Your task to perform on an android device: change the clock style Image 0: 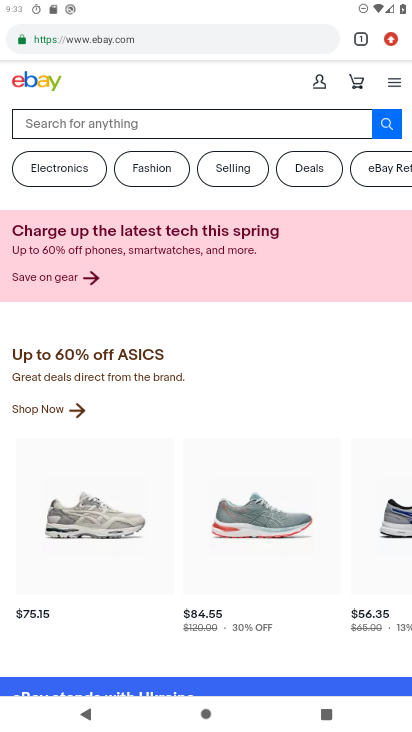
Step 0: press home button
Your task to perform on an android device: change the clock style Image 1: 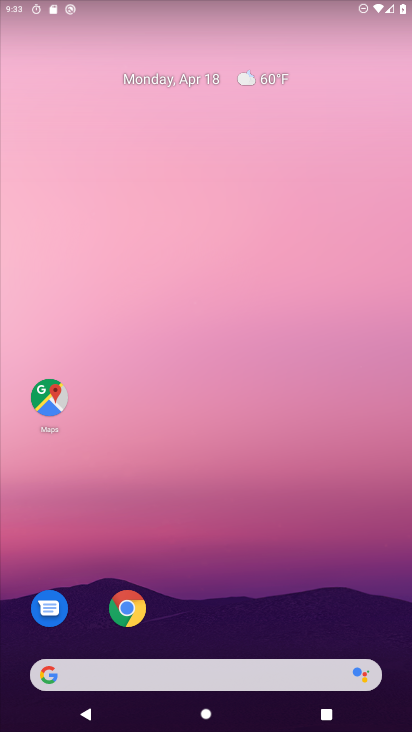
Step 1: drag from (286, 145) to (283, 66)
Your task to perform on an android device: change the clock style Image 2: 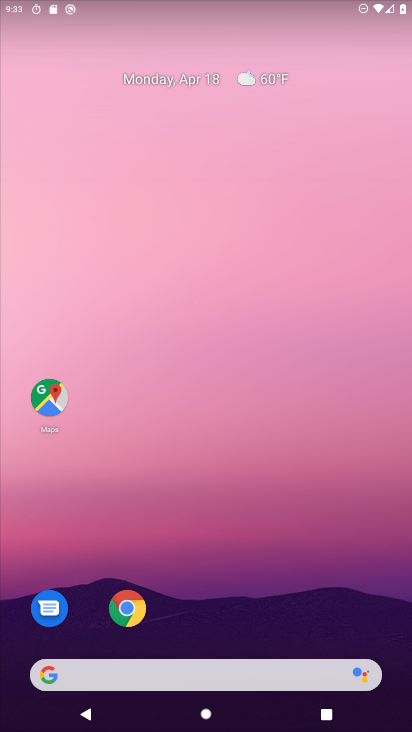
Step 2: click (386, 23)
Your task to perform on an android device: change the clock style Image 3: 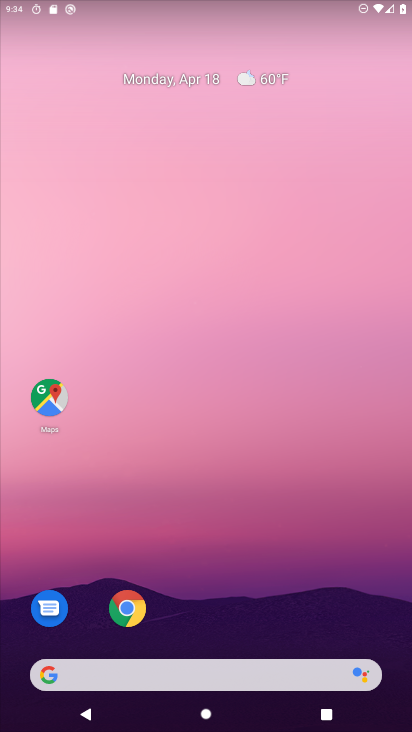
Step 3: drag from (336, 358) to (331, 83)
Your task to perform on an android device: change the clock style Image 4: 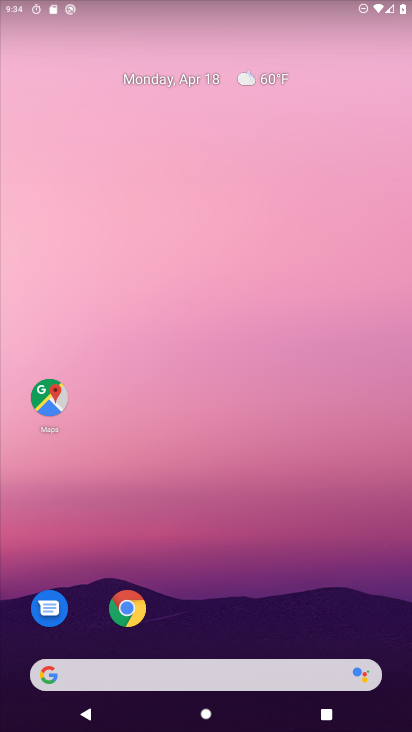
Step 4: drag from (361, 509) to (347, 41)
Your task to perform on an android device: change the clock style Image 5: 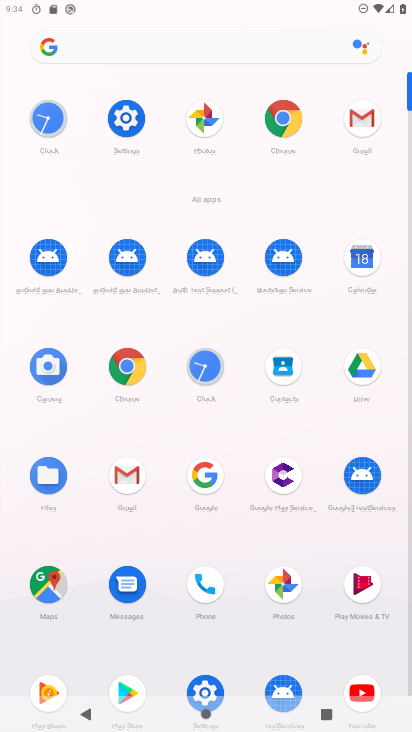
Step 5: click (213, 360)
Your task to perform on an android device: change the clock style Image 6: 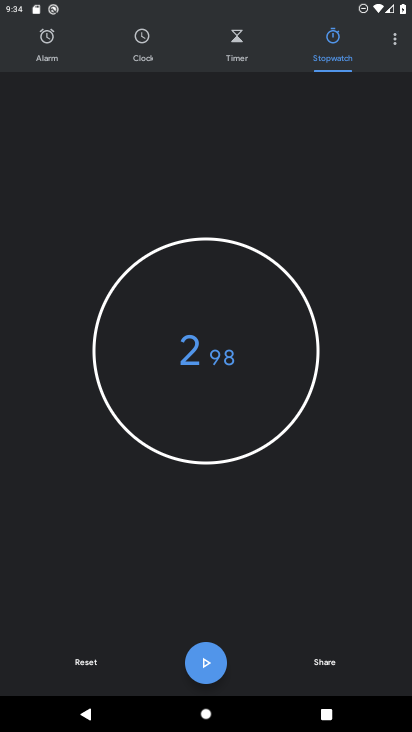
Step 6: click (146, 40)
Your task to perform on an android device: change the clock style Image 7: 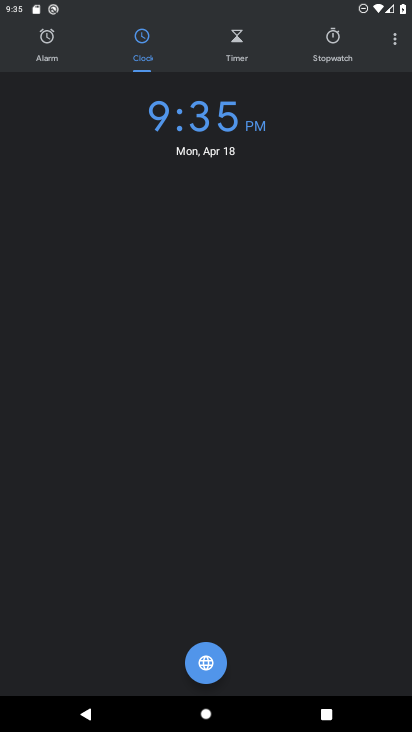
Step 7: click (393, 38)
Your task to perform on an android device: change the clock style Image 8: 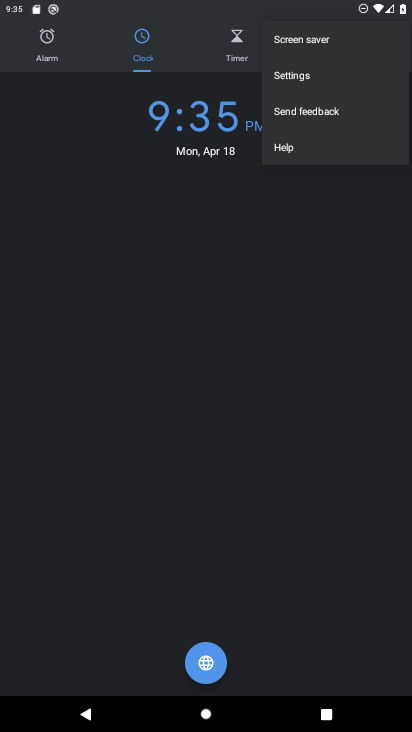
Step 8: click (296, 69)
Your task to perform on an android device: change the clock style Image 9: 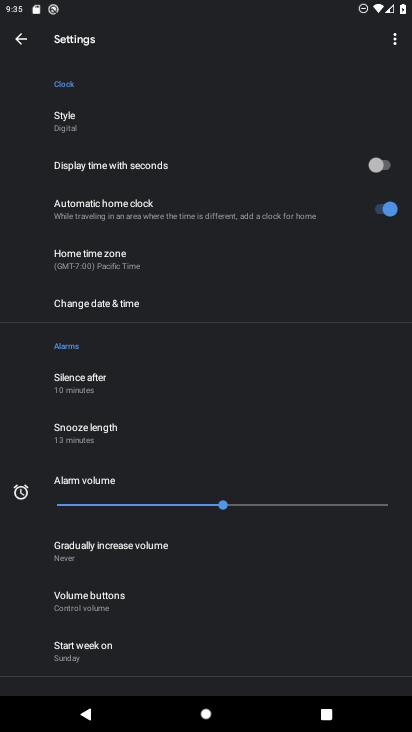
Step 9: click (76, 128)
Your task to perform on an android device: change the clock style Image 10: 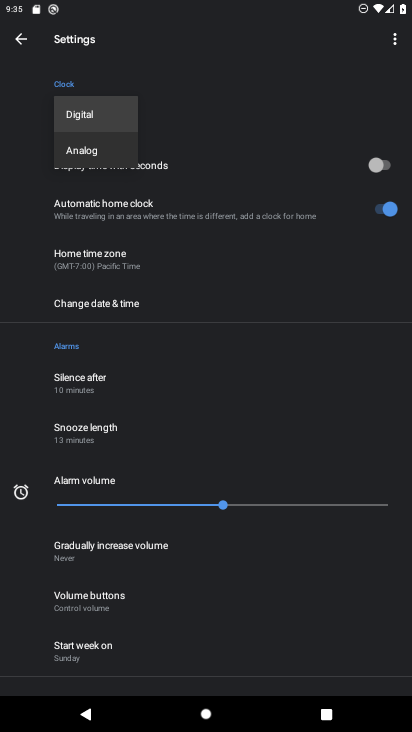
Step 10: click (101, 146)
Your task to perform on an android device: change the clock style Image 11: 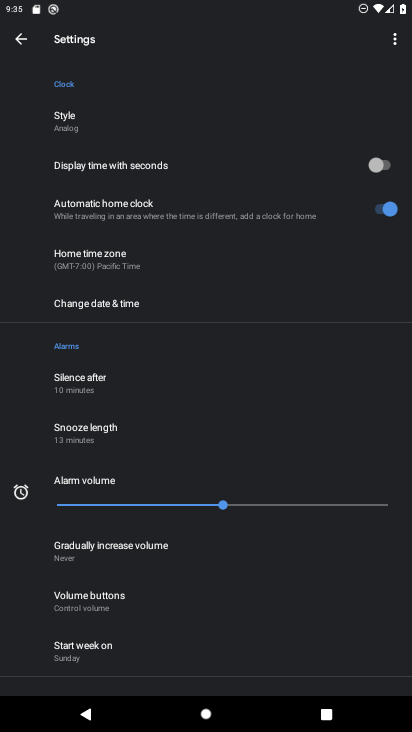
Step 11: task complete